Your task to perform on an android device: Play the latest video from the BBC Image 0: 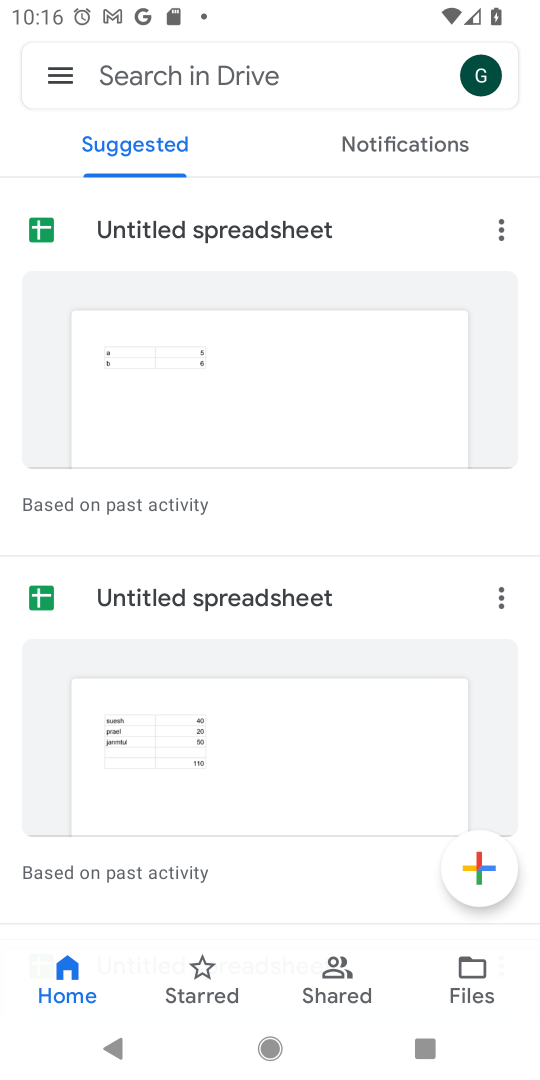
Step 0: press home button
Your task to perform on an android device: Play the latest video from the BBC Image 1: 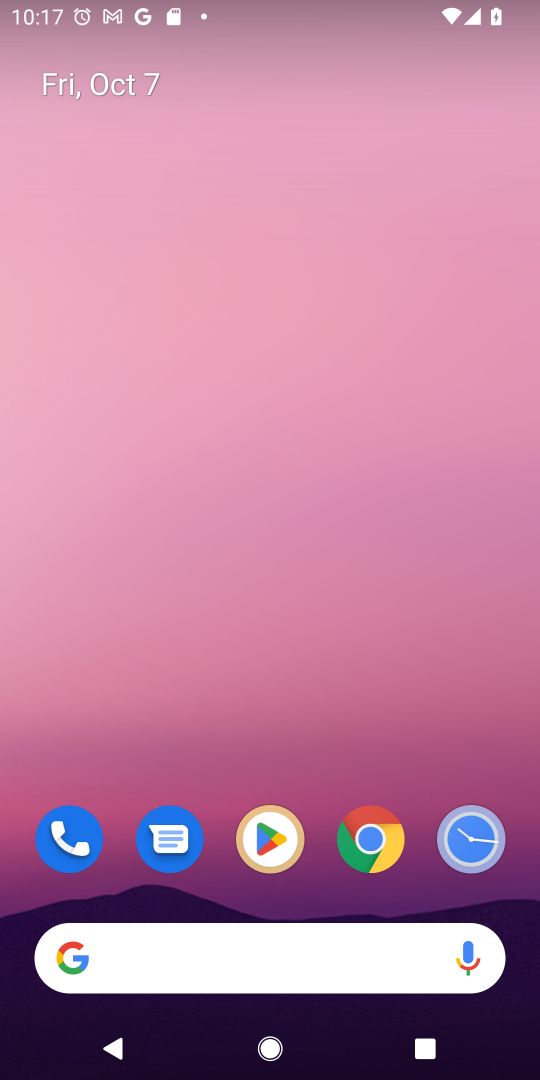
Step 1: click (378, 834)
Your task to perform on an android device: Play the latest video from the BBC Image 2: 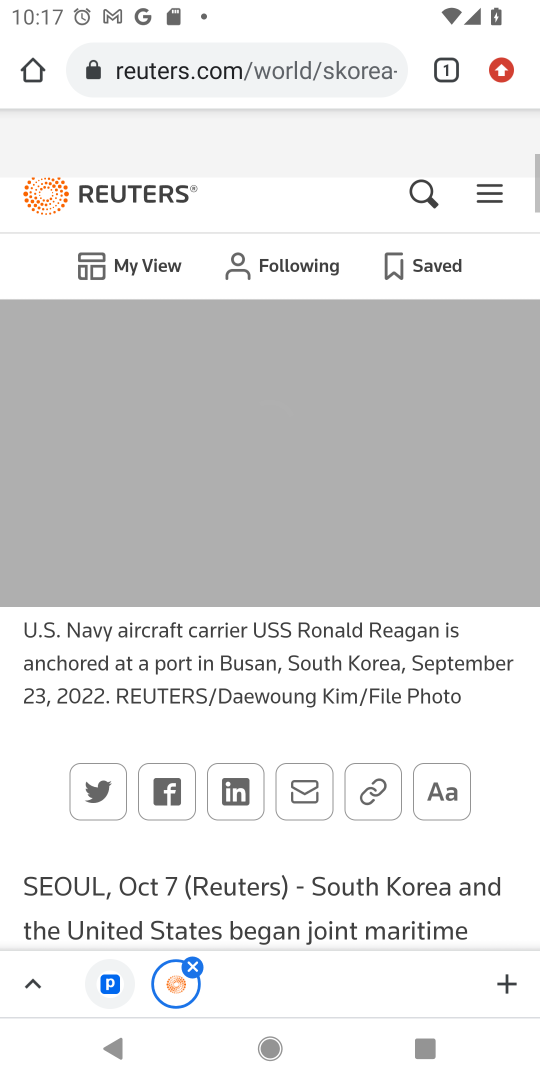
Step 2: click (192, 63)
Your task to perform on an android device: Play the latest video from the BBC Image 3: 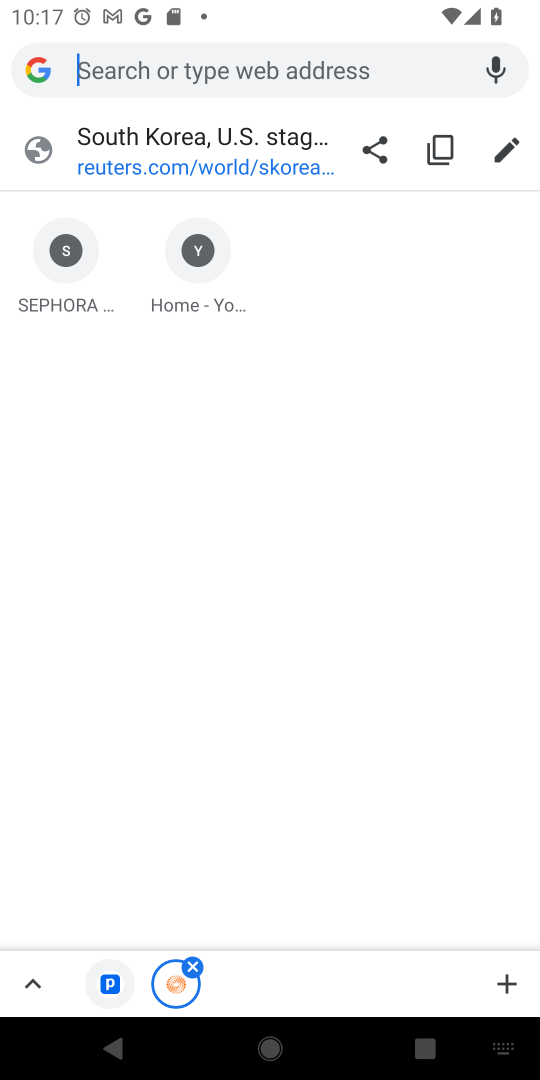
Step 3: type "bcc"
Your task to perform on an android device: Play the latest video from the BBC Image 4: 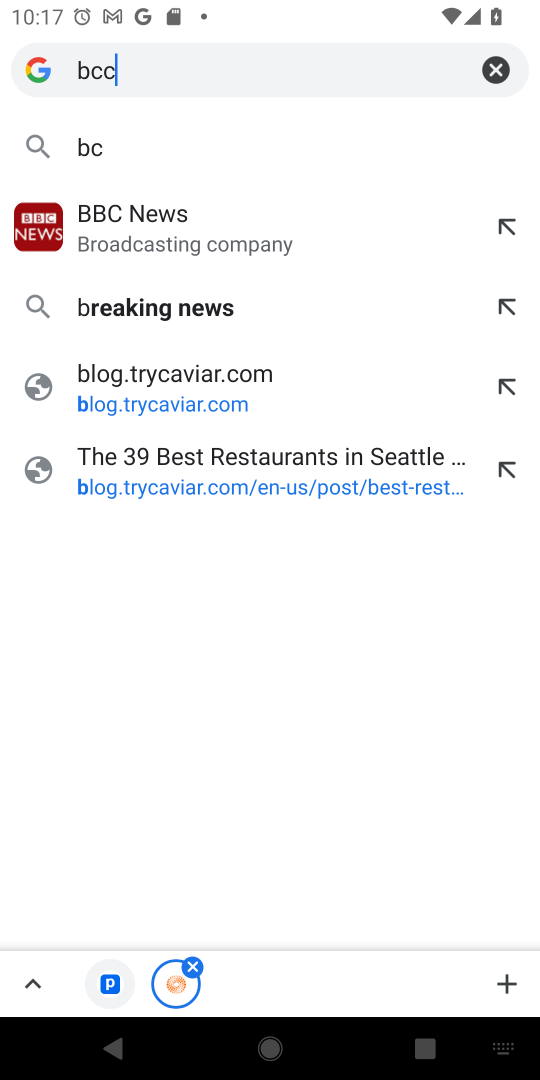
Step 4: type ""
Your task to perform on an android device: Play the latest video from the BBC Image 5: 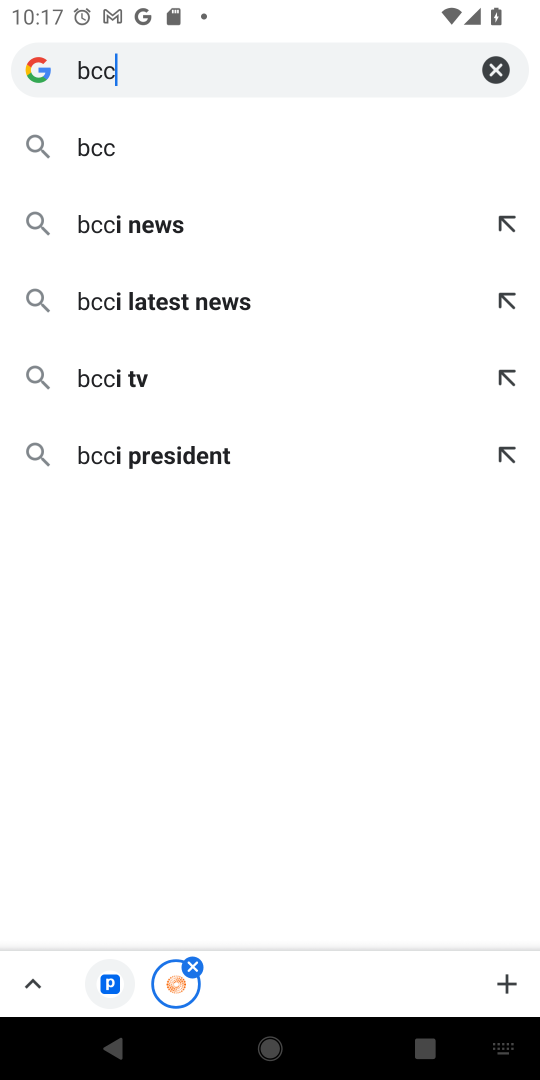
Step 5: click (115, 228)
Your task to perform on an android device: Play the latest video from the BBC Image 6: 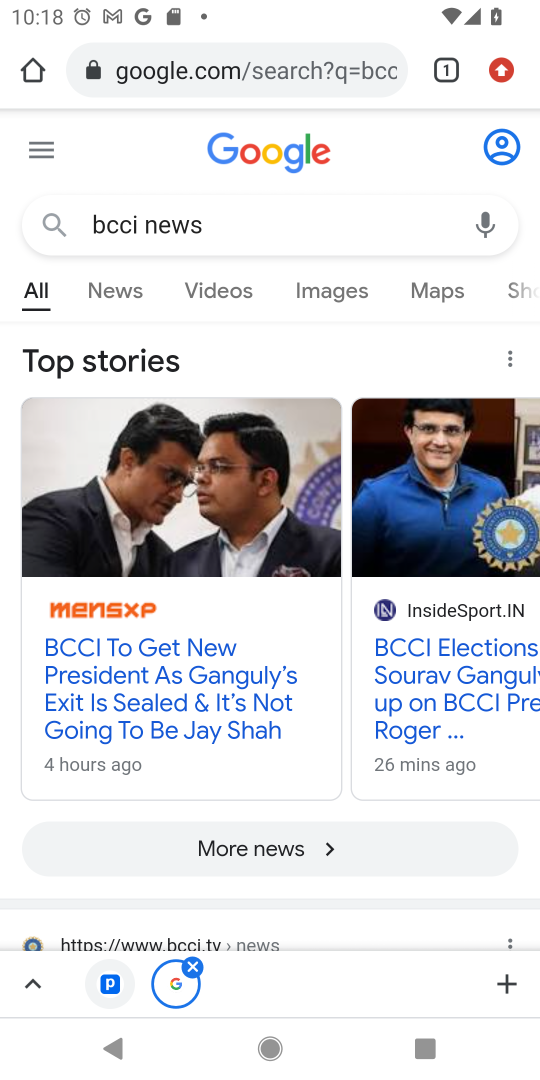
Step 6: click (216, 286)
Your task to perform on an android device: Play the latest video from the BBC Image 7: 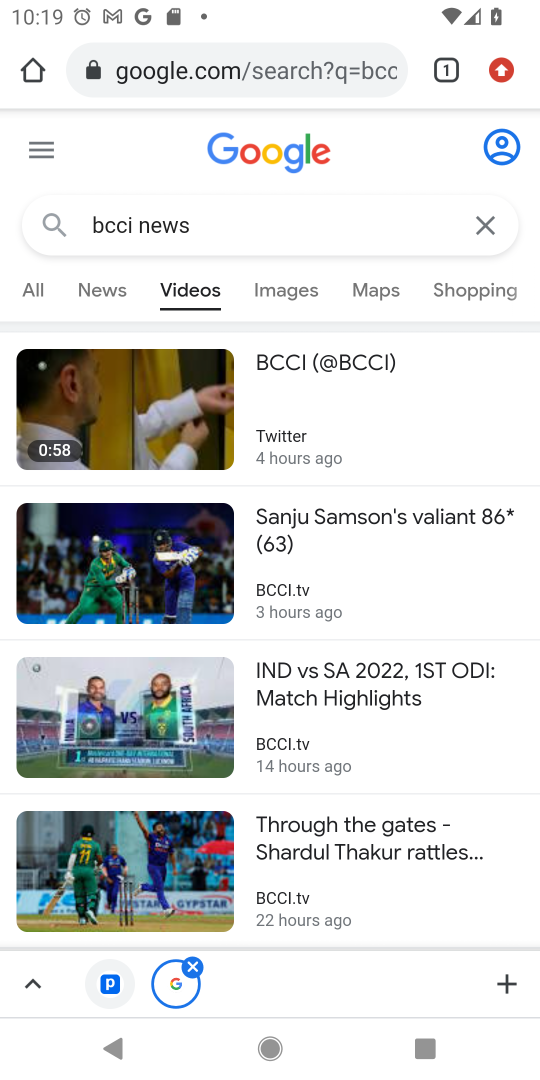
Step 7: drag from (134, 631) to (168, 412)
Your task to perform on an android device: Play the latest video from the BBC Image 8: 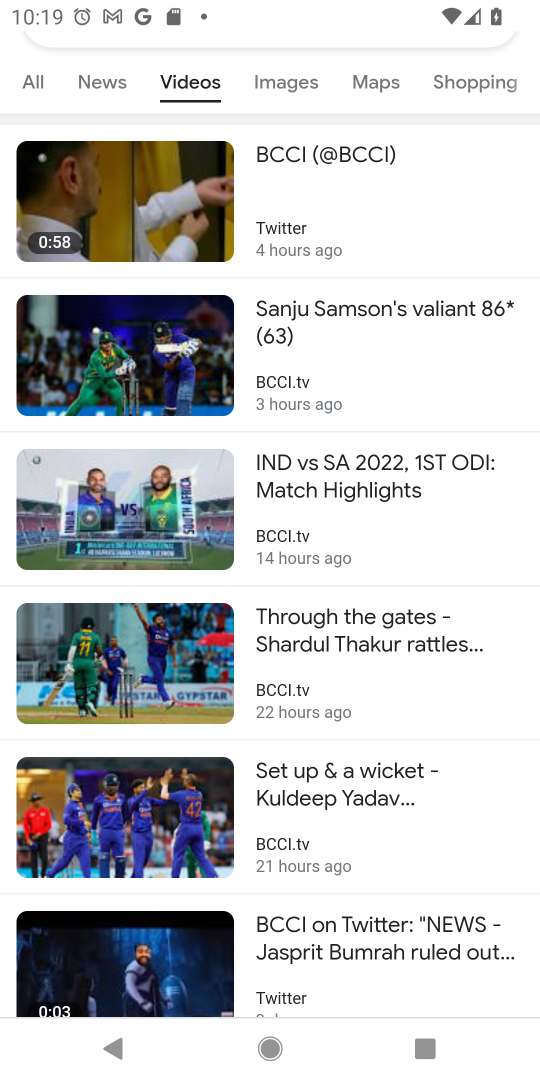
Step 8: click (121, 536)
Your task to perform on an android device: Play the latest video from the BBC Image 9: 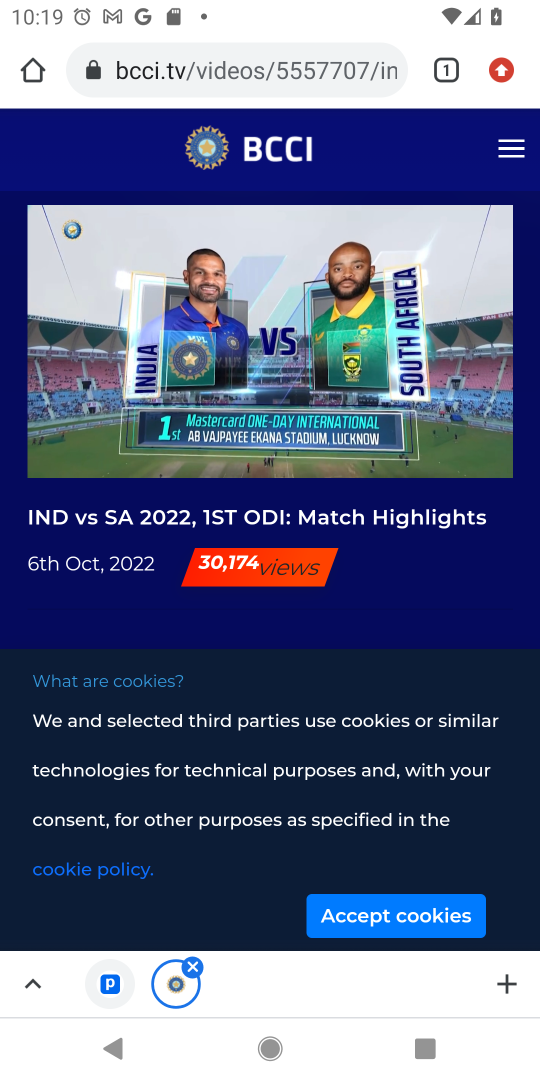
Step 9: task complete